Your task to perform on an android device: toggle airplane mode Image 0: 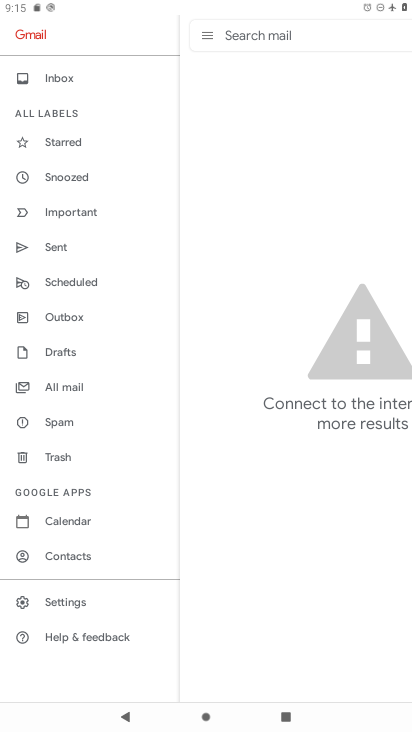
Step 0: press home button
Your task to perform on an android device: toggle airplane mode Image 1: 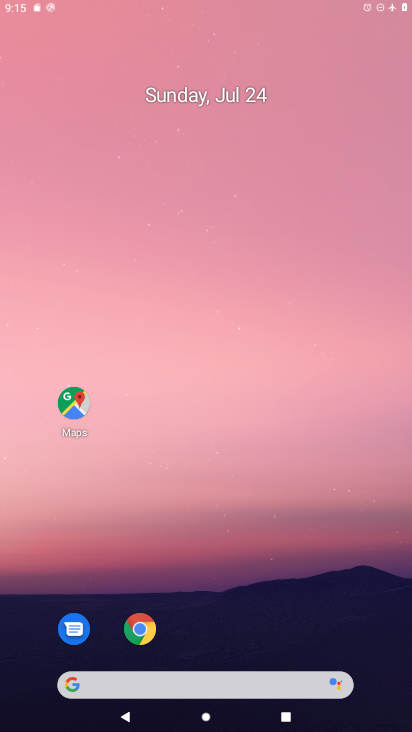
Step 1: drag from (391, 677) to (330, 526)
Your task to perform on an android device: toggle airplane mode Image 2: 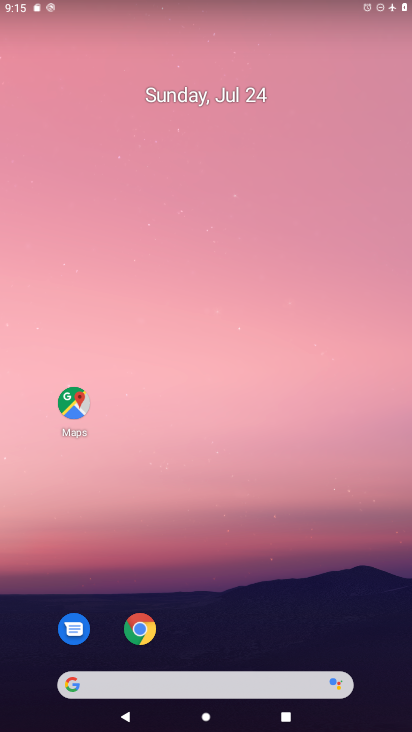
Step 2: drag from (278, 14) to (321, 561)
Your task to perform on an android device: toggle airplane mode Image 3: 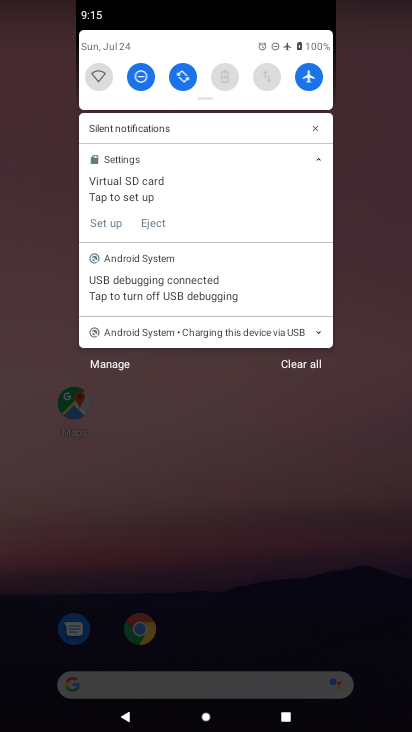
Step 3: click (308, 72)
Your task to perform on an android device: toggle airplane mode Image 4: 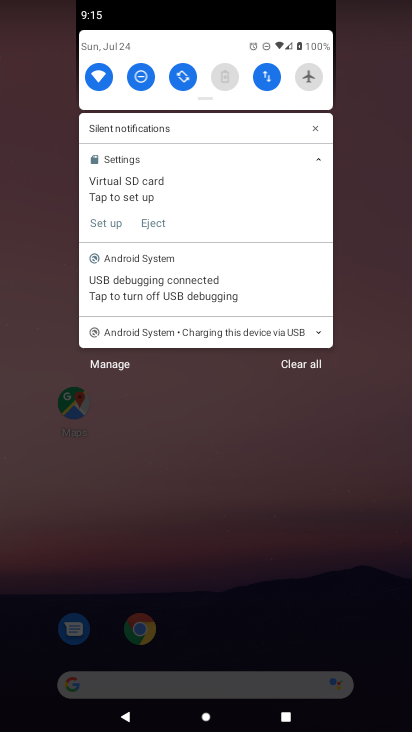
Step 4: task complete